Your task to perform on an android device: What's on my calendar today? Image 0: 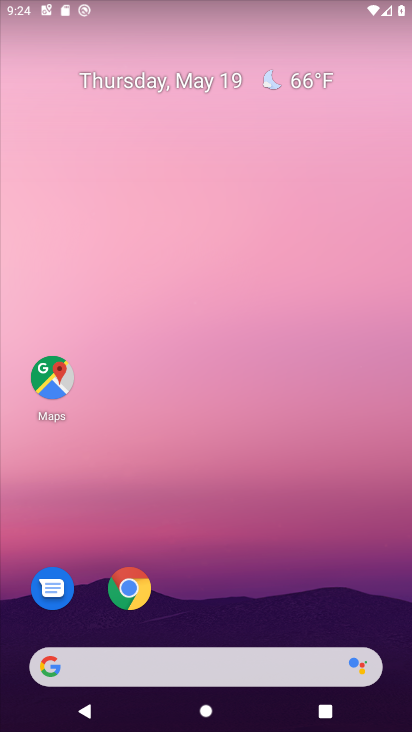
Step 0: drag from (358, 594) to (353, 182)
Your task to perform on an android device: What's on my calendar today? Image 1: 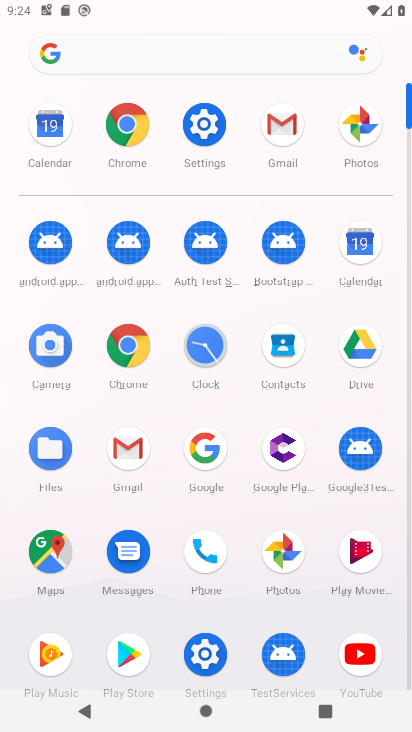
Step 1: click (362, 260)
Your task to perform on an android device: What's on my calendar today? Image 2: 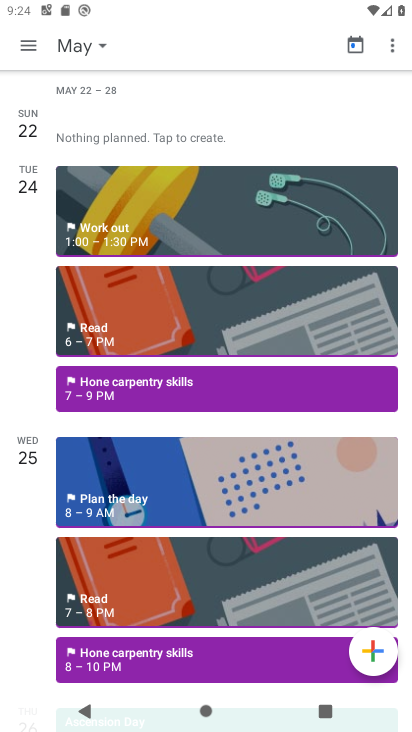
Step 2: click (101, 53)
Your task to perform on an android device: What's on my calendar today? Image 3: 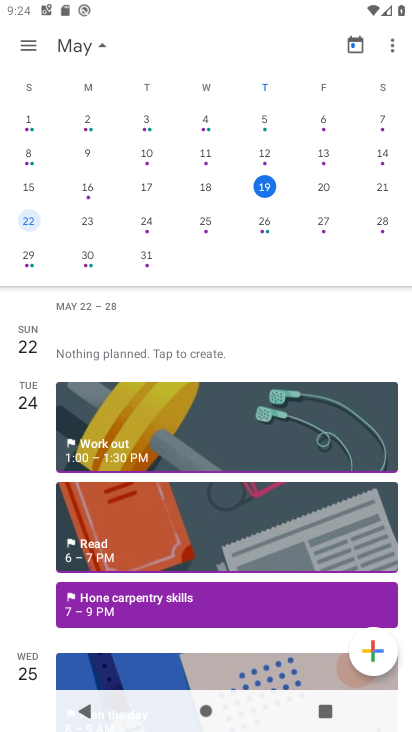
Step 3: click (329, 189)
Your task to perform on an android device: What's on my calendar today? Image 4: 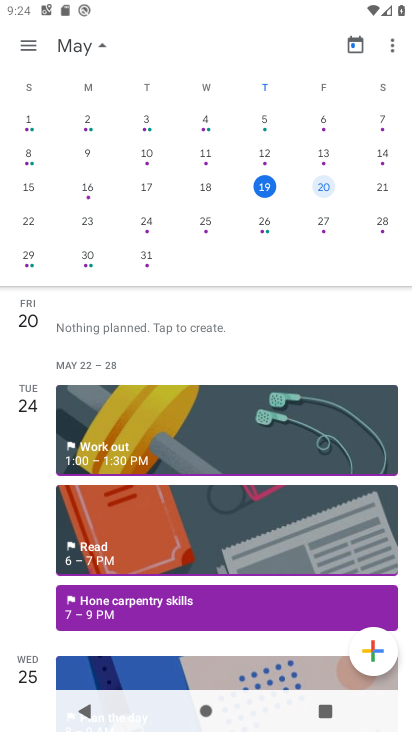
Step 4: task complete